Your task to perform on an android device: manage bookmarks in the chrome app Image 0: 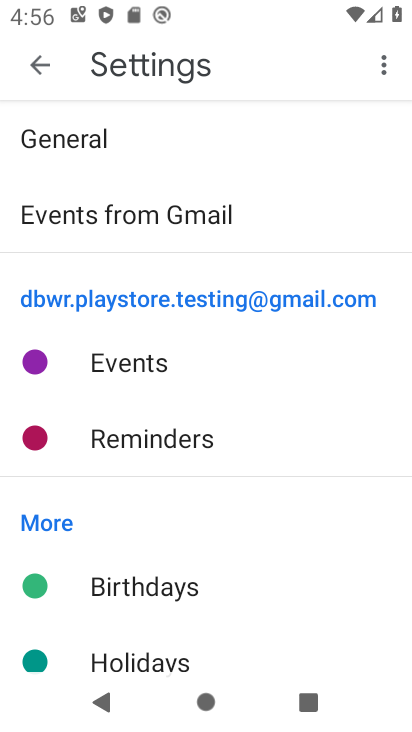
Step 0: press home button
Your task to perform on an android device: manage bookmarks in the chrome app Image 1: 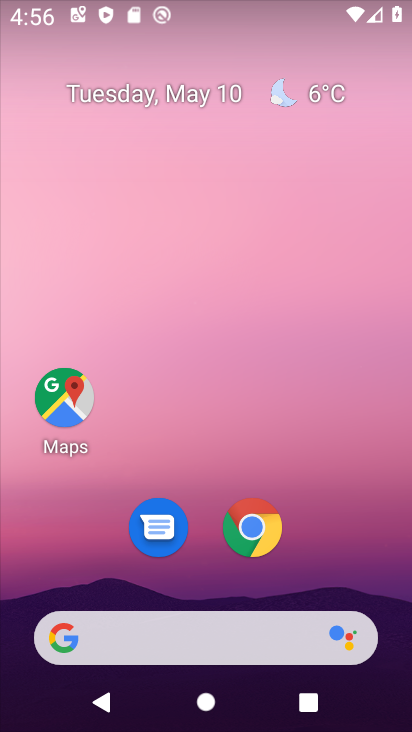
Step 1: click (264, 538)
Your task to perform on an android device: manage bookmarks in the chrome app Image 2: 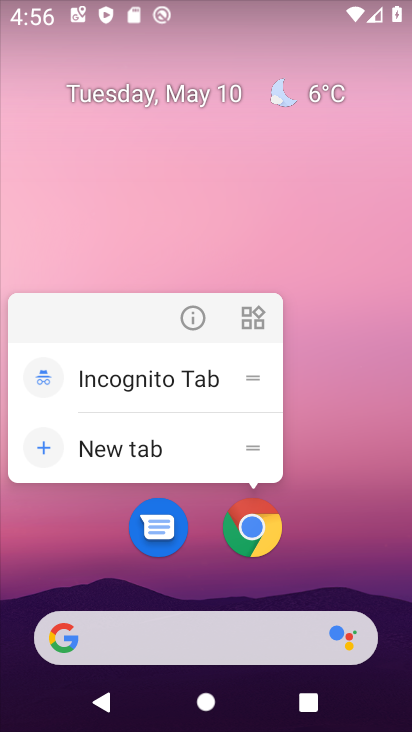
Step 2: click (259, 531)
Your task to perform on an android device: manage bookmarks in the chrome app Image 3: 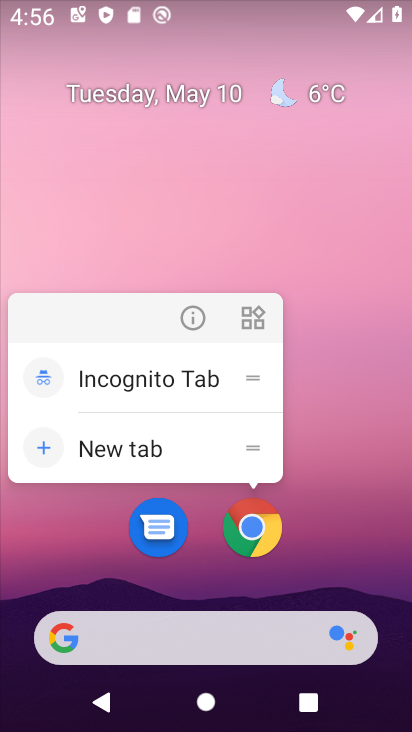
Step 3: click (259, 531)
Your task to perform on an android device: manage bookmarks in the chrome app Image 4: 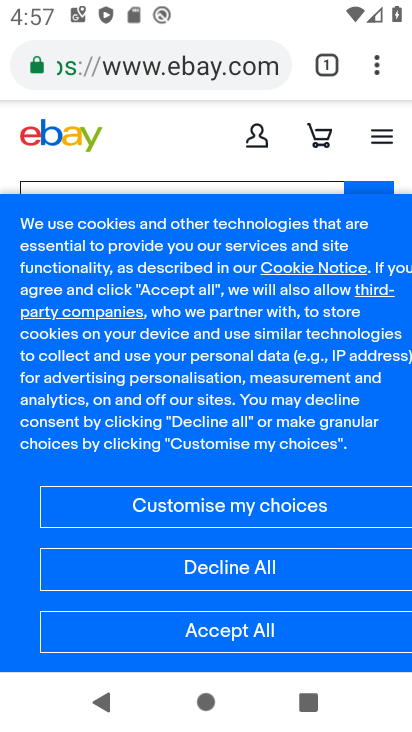
Step 4: click (383, 77)
Your task to perform on an android device: manage bookmarks in the chrome app Image 5: 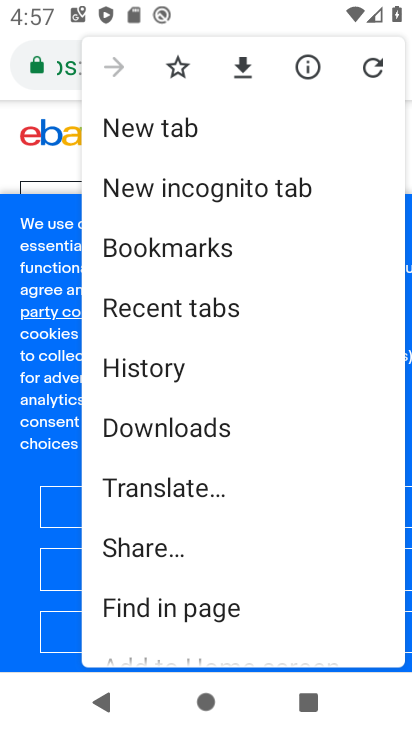
Step 5: click (180, 67)
Your task to perform on an android device: manage bookmarks in the chrome app Image 6: 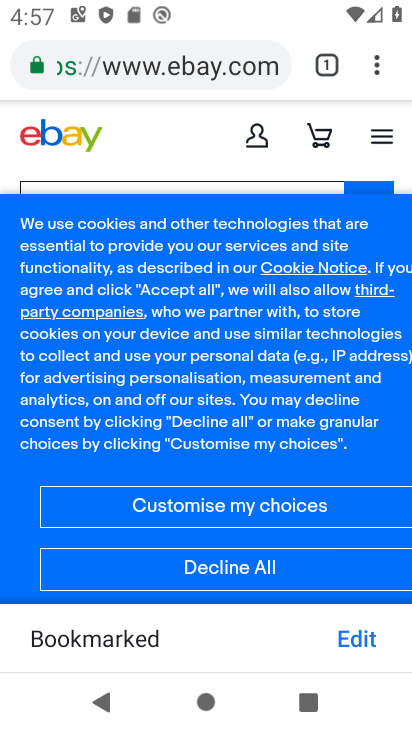
Step 6: task complete